Your task to perform on an android device: open the mobile data screen to see how much data has been used Image 0: 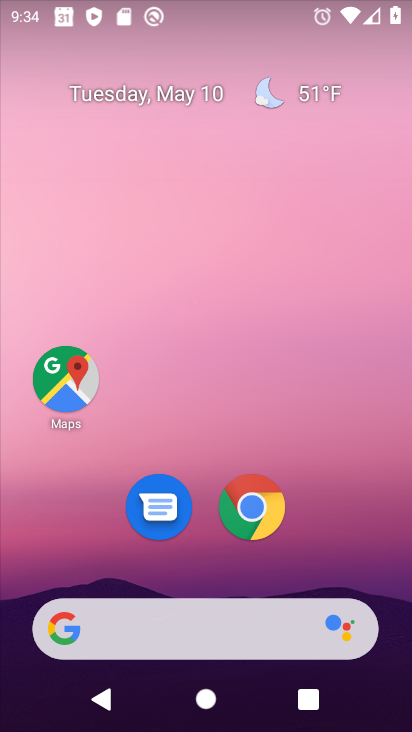
Step 0: click (256, 499)
Your task to perform on an android device: open the mobile data screen to see how much data has been used Image 1: 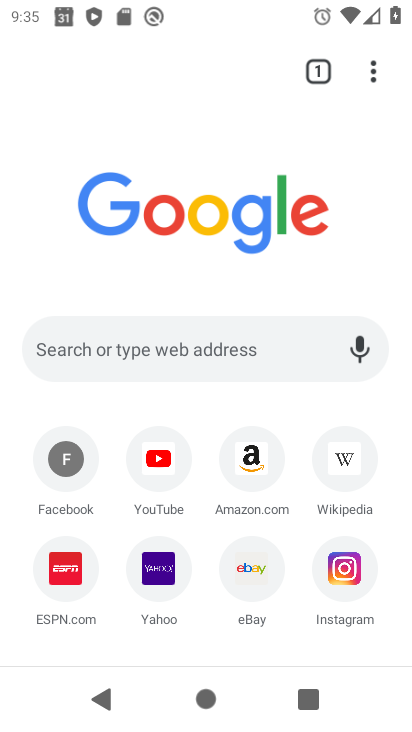
Step 1: press home button
Your task to perform on an android device: open the mobile data screen to see how much data has been used Image 2: 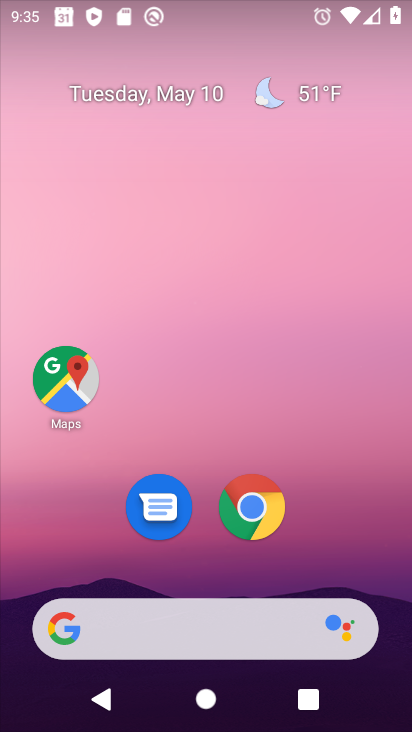
Step 2: click (292, 515)
Your task to perform on an android device: open the mobile data screen to see how much data has been used Image 3: 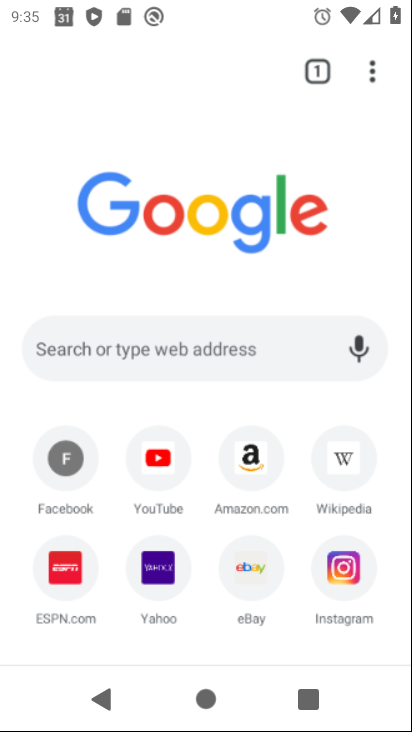
Step 3: drag from (193, 576) to (207, 84)
Your task to perform on an android device: open the mobile data screen to see how much data has been used Image 4: 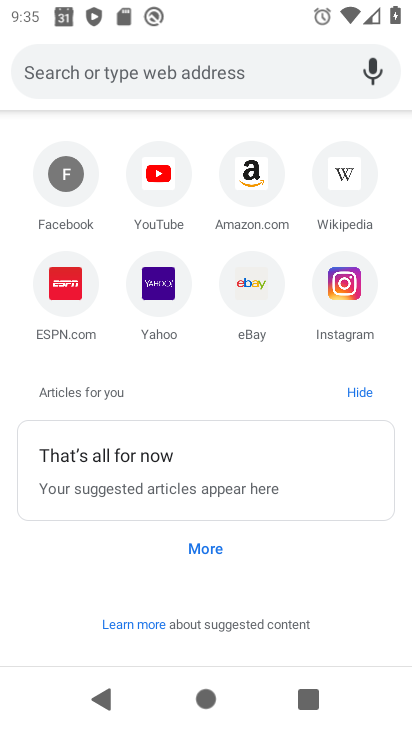
Step 4: press home button
Your task to perform on an android device: open the mobile data screen to see how much data has been used Image 5: 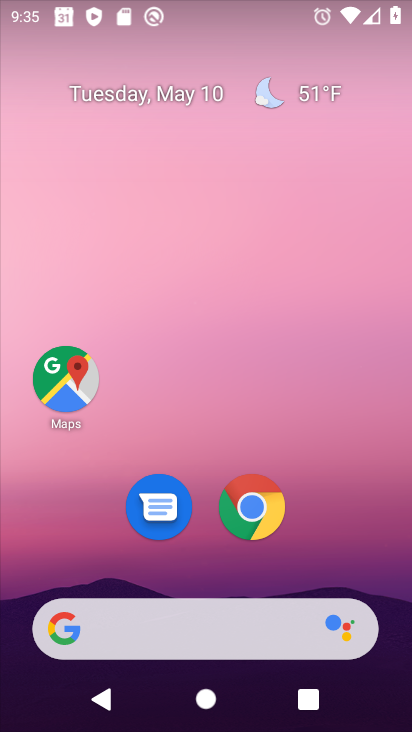
Step 5: drag from (194, 550) to (210, 126)
Your task to perform on an android device: open the mobile data screen to see how much data has been used Image 6: 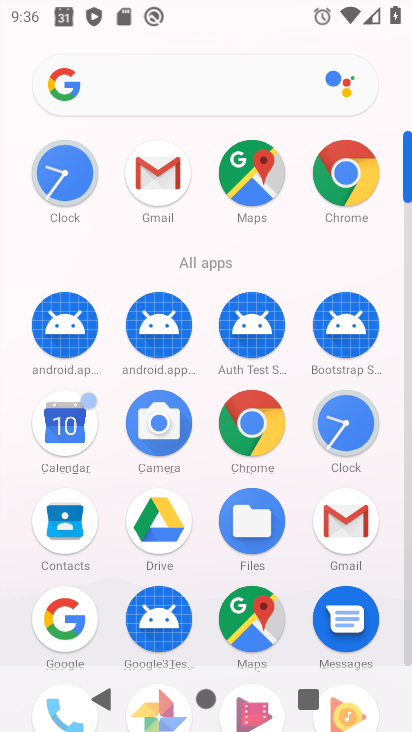
Step 6: drag from (100, 585) to (158, 132)
Your task to perform on an android device: open the mobile data screen to see how much data has been used Image 7: 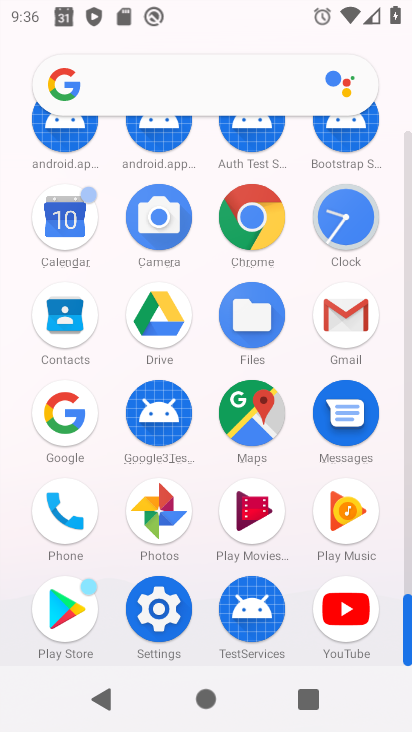
Step 7: click (157, 600)
Your task to perform on an android device: open the mobile data screen to see how much data has been used Image 8: 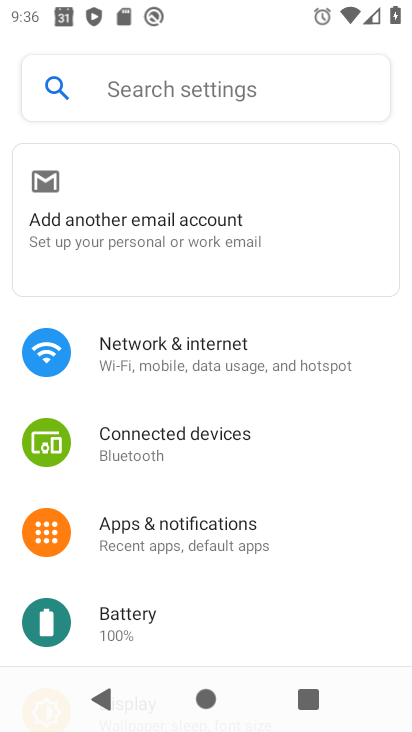
Step 8: click (190, 380)
Your task to perform on an android device: open the mobile data screen to see how much data has been used Image 9: 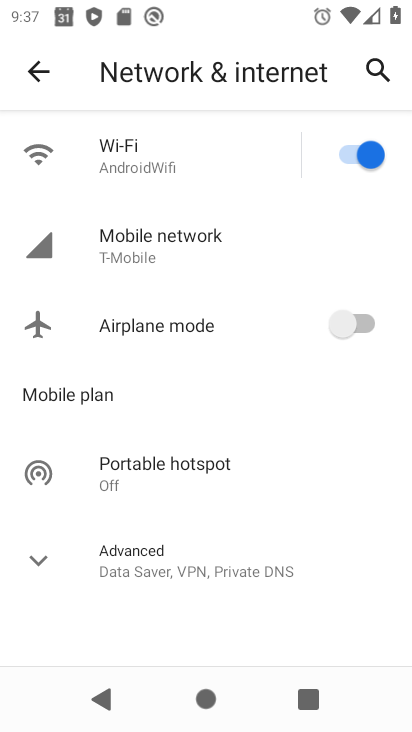
Step 9: click (208, 241)
Your task to perform on an android device: open the mobile data screen to see how much data has been used Image 10: 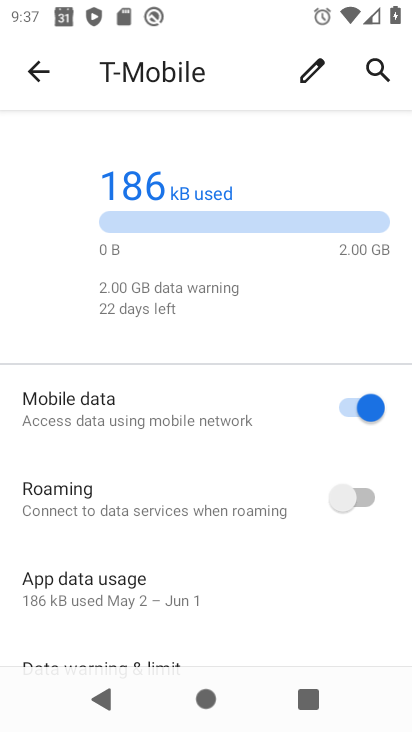
Step 10: drag from (212, 606) to (241, 319)
Your task to perform on an android device: open the mobile data screen to see how much data has been used Image 11: 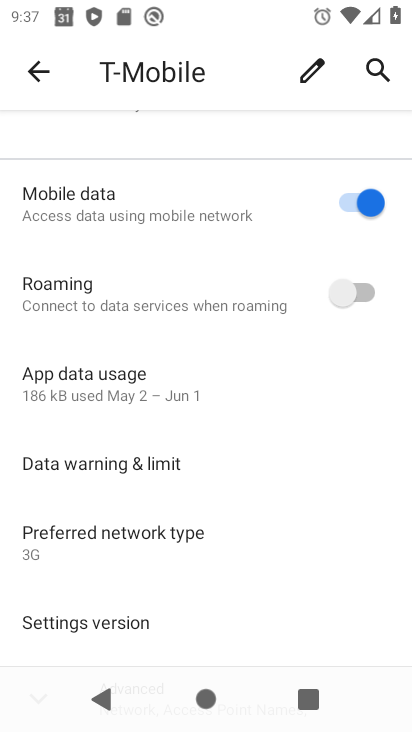
Step 11: click (163, 400)
Your task to perform on an android device: open the mobile data screen to see how much data has been used Image 12: 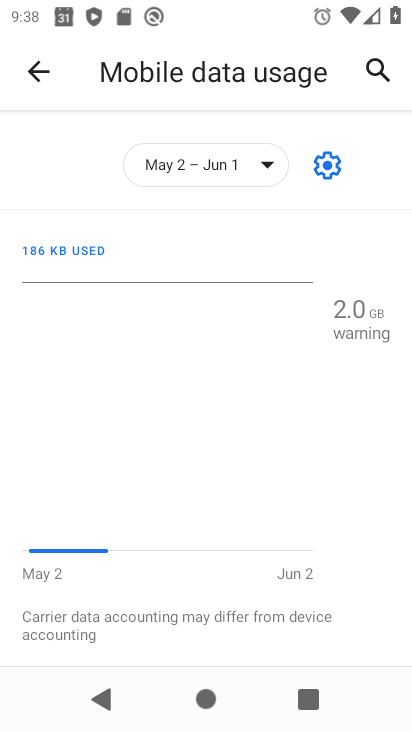
Step 12: task complete